Your task to perform on an android device: What's the weather going to be this weekend? Image 0: 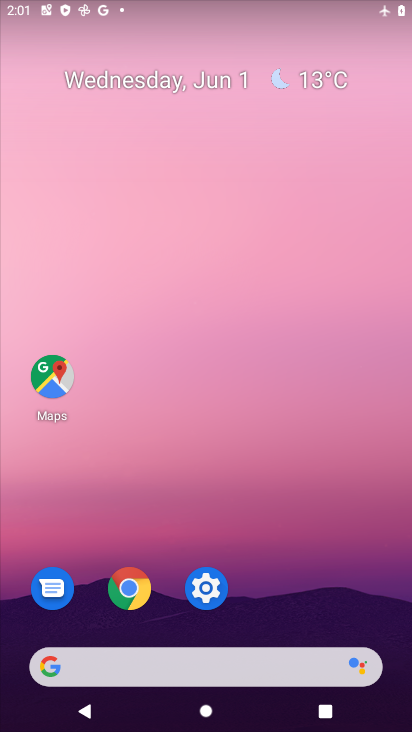
Step 0: drag from (260, 670) to (253, 220)
Your task to perform on an android device: What's the weather going to be this weekend? Image 1: 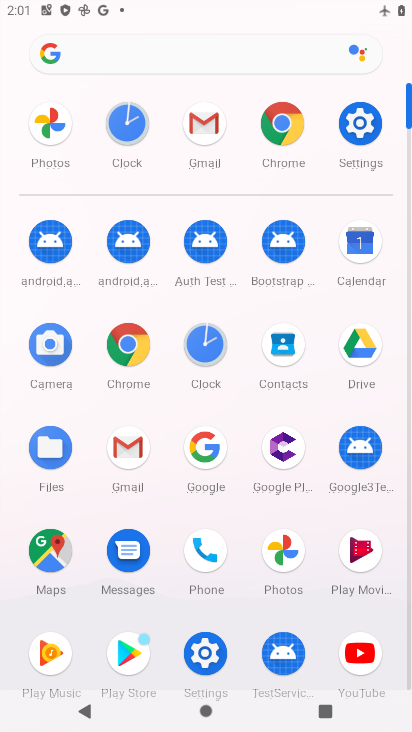
Step 1: click (181, 71)
Your task to perform on an android device: What's the weather going to be this weekend? Image 2: 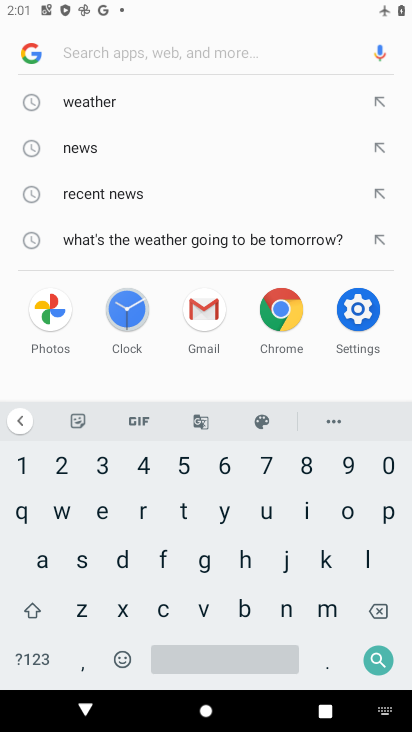
Step 2: click (113, 99)
Your task to perform on an android device: What's the weather going to be this weekend? Image 3: 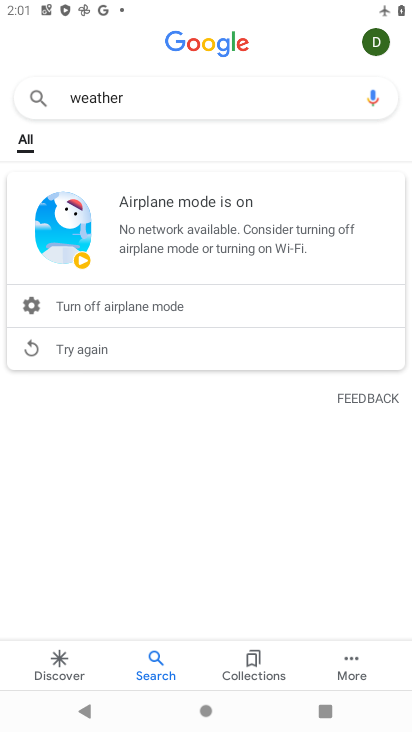
Step 3: press home button
Your task to perform on an android device: What's the weather going to be this weekend? Image 4: 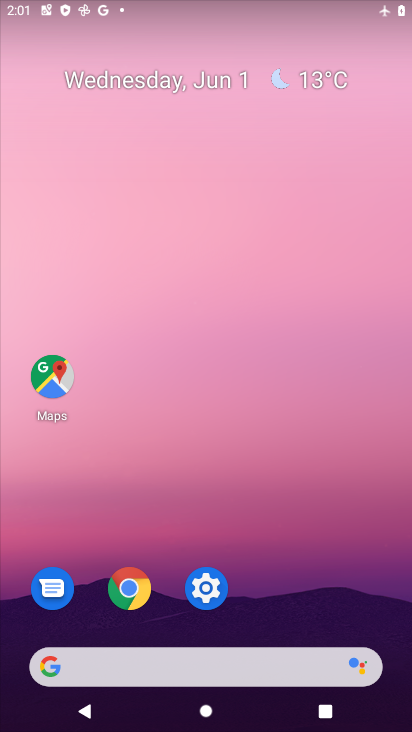
Step 4: click (200, 597)
Your task to perform on an android device: What's the weather going to be this weekend? Image 5: 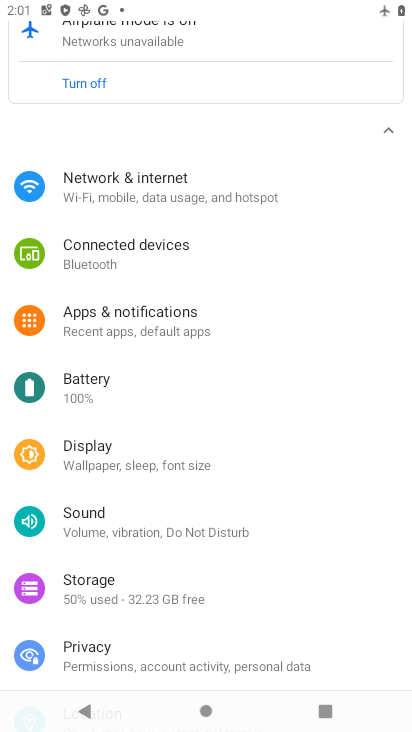
Step 5: click (114, 85)
Your task to perform on an android device: What's the weather going to be this weekend? Image 6: 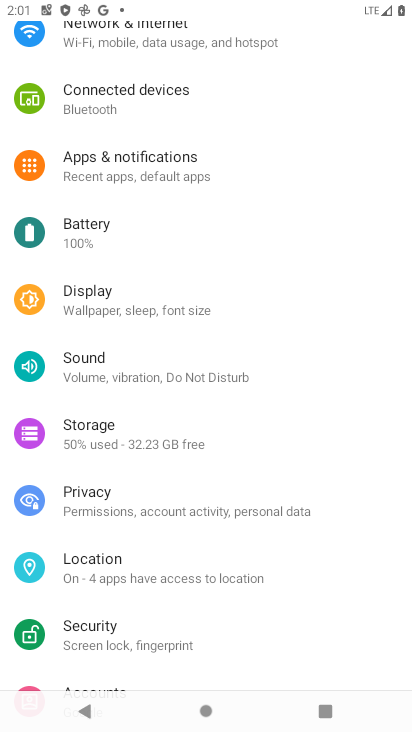
Step 6: click (129, 49)
Your task to perform on an android device: What's the weather going to be this weekend? Image 7: 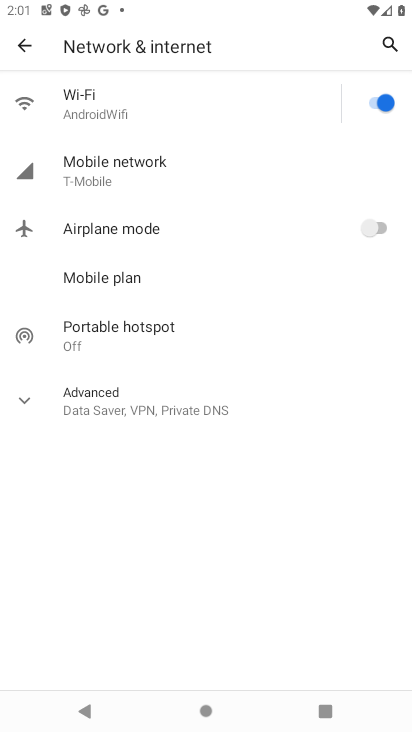
Step 7: press home button
Your task to perform on an android device: What's the weather going to be this weekend? Image 8: 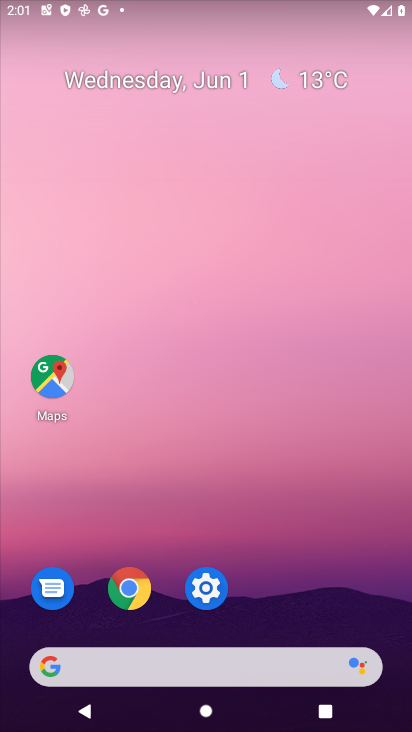
Step 8: click (147, 694)
Your task to perform on an android device: What's the weather going to be this weekend? Image 9: 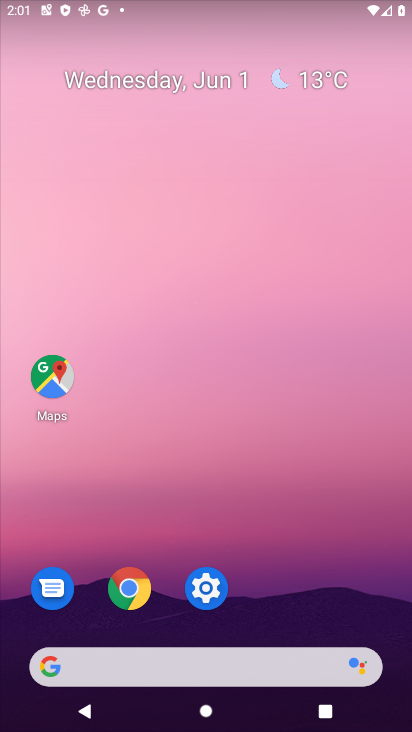
Step 9: click (111, 665)
Your task to perform on an android device: What's the weather going to be this weekend? Image 10: 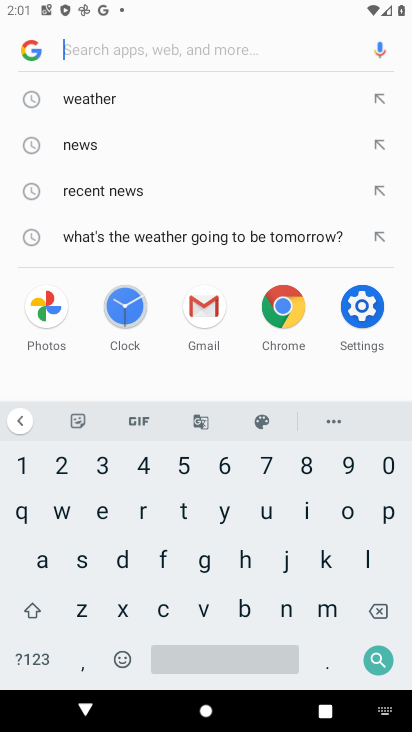
Step 10: click (109, 100)
Your task to perform on an android device: What's the weather going to be this weekend? Image 11: 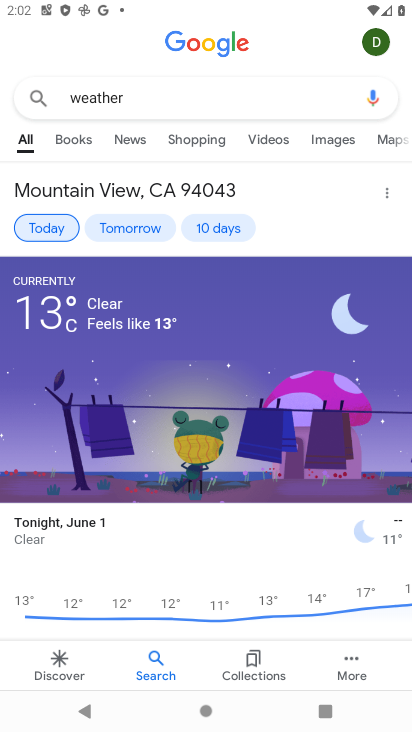
Step 11: click (224, 234)
Your task to perform on an android device: What's the weather going to be this weekend? Image 12: 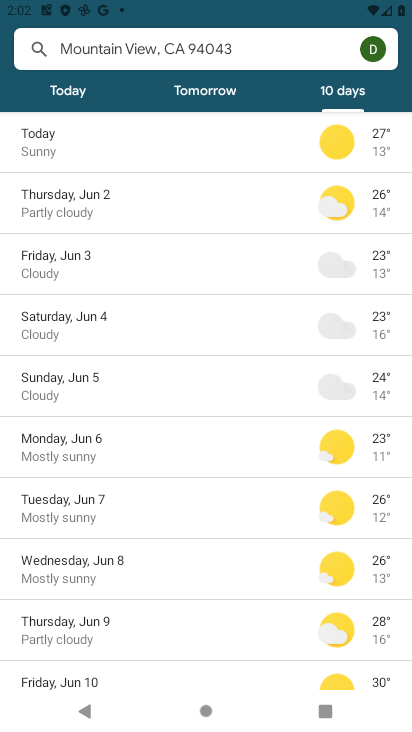
Step 12: task complete